Your task to perform on an android device: Search for sushi restaurants on Maps Image 0: 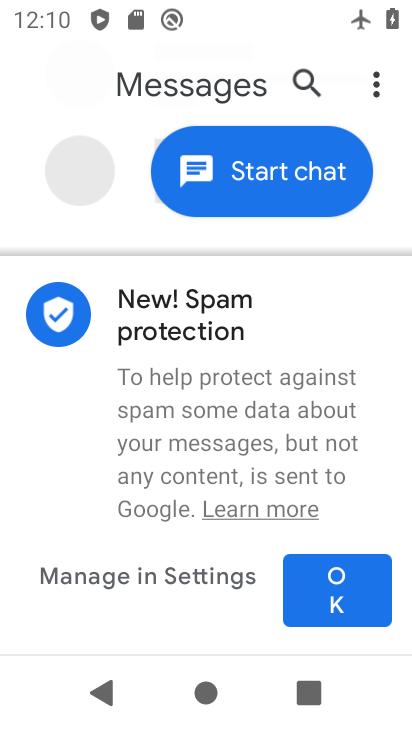
Step 0: press home button
Your task to perform on an android device: Search for sushi restaurants on Maps Image 1: 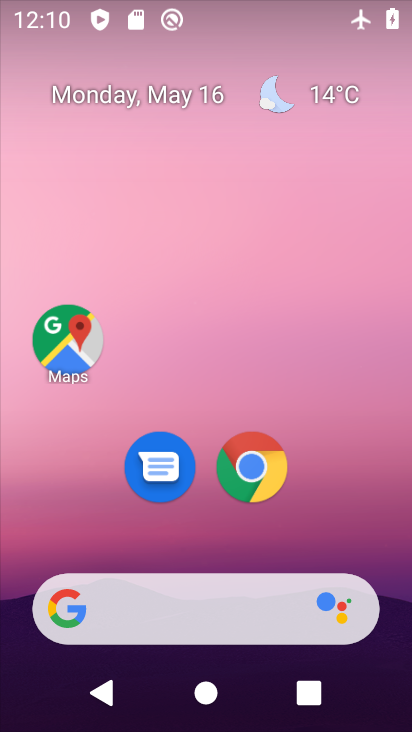
Step 1: click (79, 321)
Your task to perform on an android device: Search for sushi restaurants on Maps Image 2: 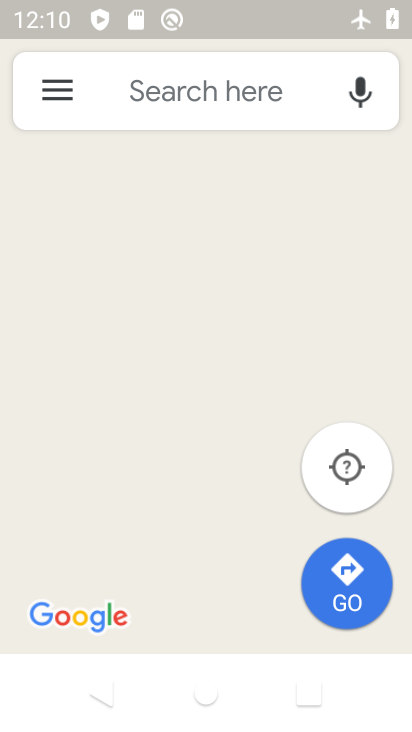
Step 2: click (231, 89)
Your task to perform on an android device: Search for sushi restaurants on Maps Image 3: 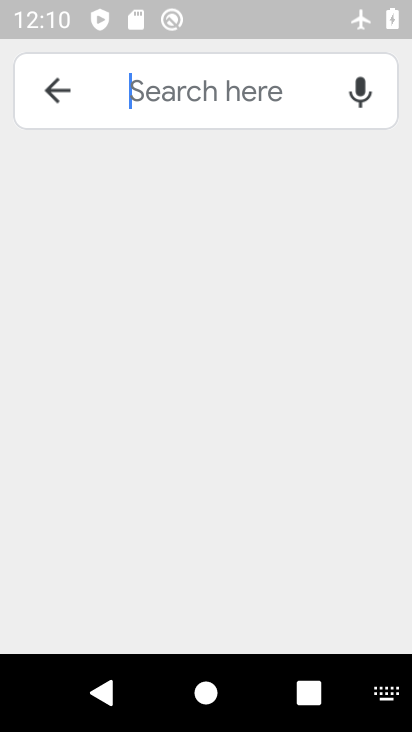
Step 3: click (229, 96)
Your task to perform on an android device: Search for sushi restaurants on Maps Image 4: 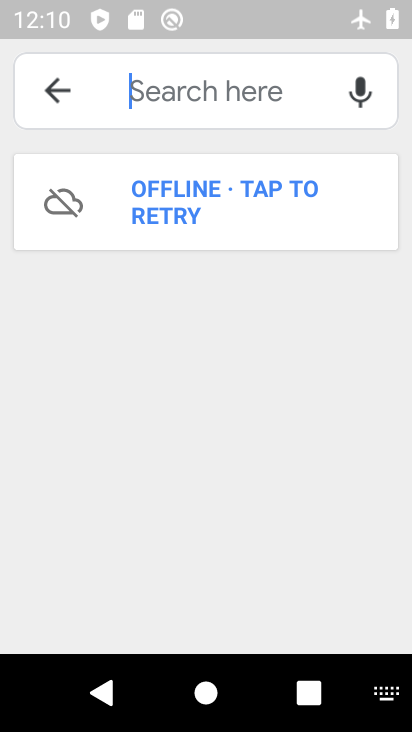
Step 4: click (160, 85)
Your task to perform on an android device: Search for sushi restaurants on Maps Image 5: 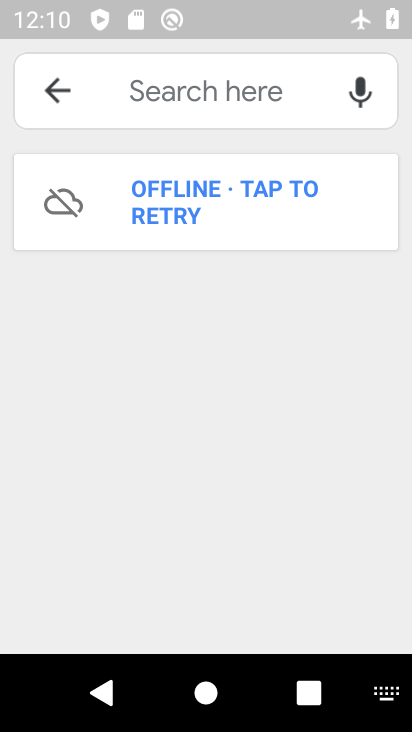
Step 5: type " sushi restaurants"
Your task to perform on an android device: Search for sushi restaurants on Maps Image 6: 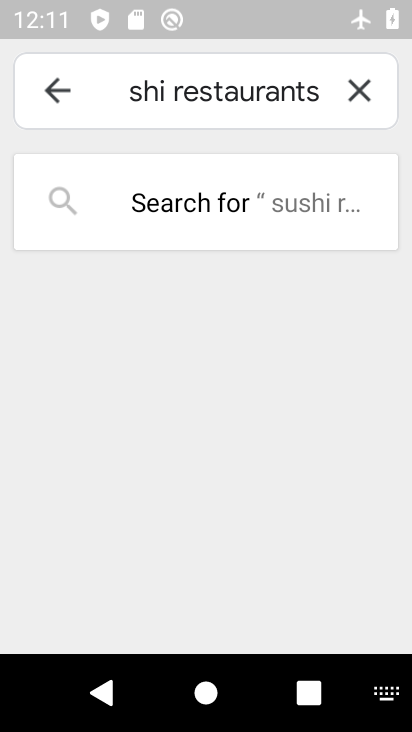
Step 6: click (182, 189)
Your task to perform on an android device: Search for sushi restaurants on Maps Image 7: 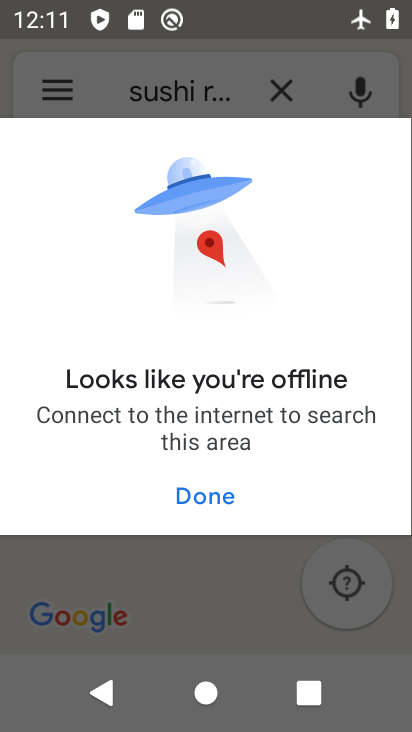
Step 7: task complete